Your task to perform on an android device: turn on priority inbox in the gmail app Image 0: 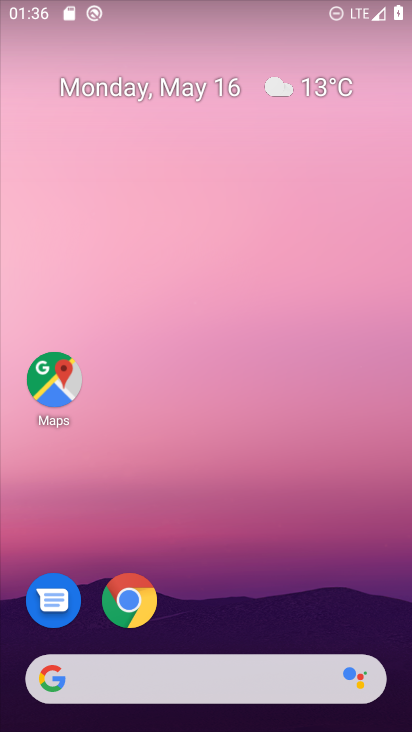
Step 0: drag from (217, 627) to (208, 40)
Your task to perform on an android device: turn on priority inbox in the gmail app Image 1: 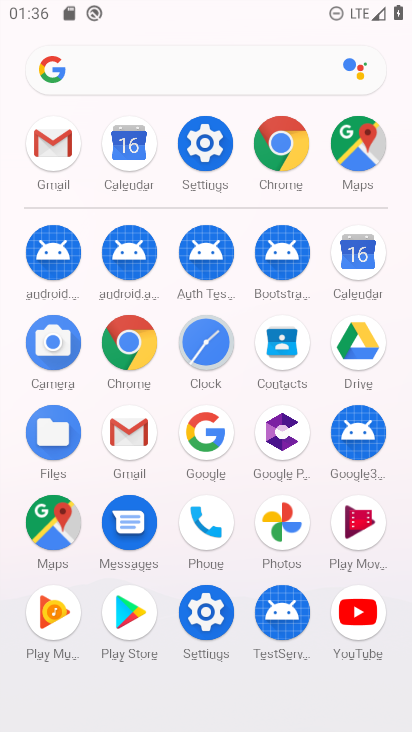
Step 1: click (123, 424)
Your task to perform on an android device: turn on priority inbox in the gmail app Image 2: 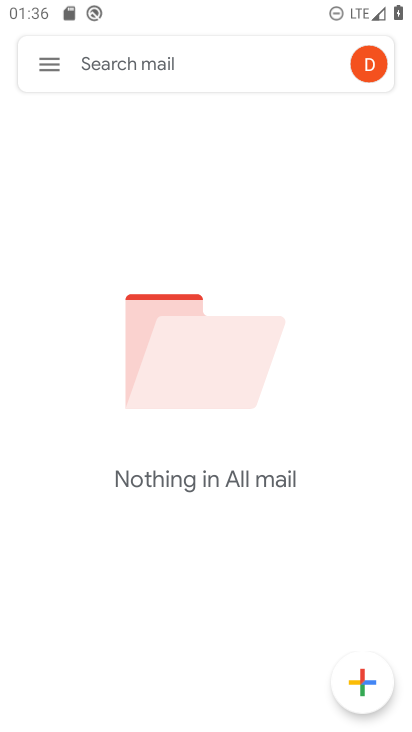
Step 2: click (37, 55)
Your task to perform on an android device: turn on priority inbox in the gmail app Image 3: 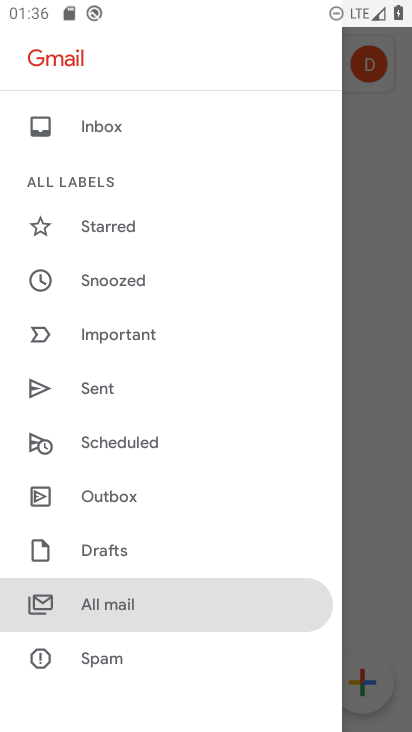
Step 3: drag from (139, 649) to (139, 23)
Your task to perform on an android device: turn on priority inbox in the gmail app Image 4: 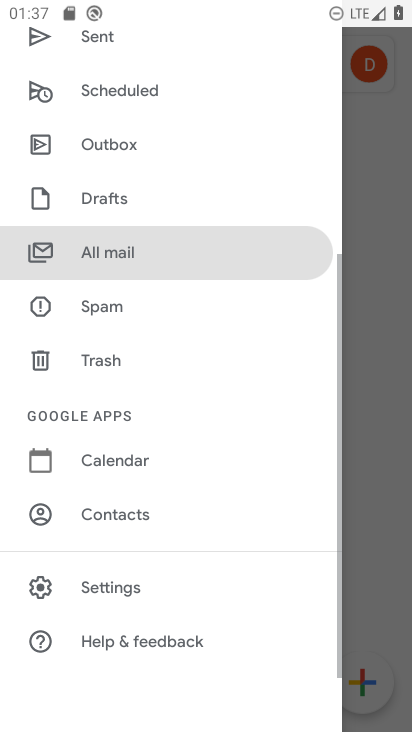
Step 4: click (132, 577)
Your task to perform on an android device: turn on priority inbox in the gmail app Image 5: 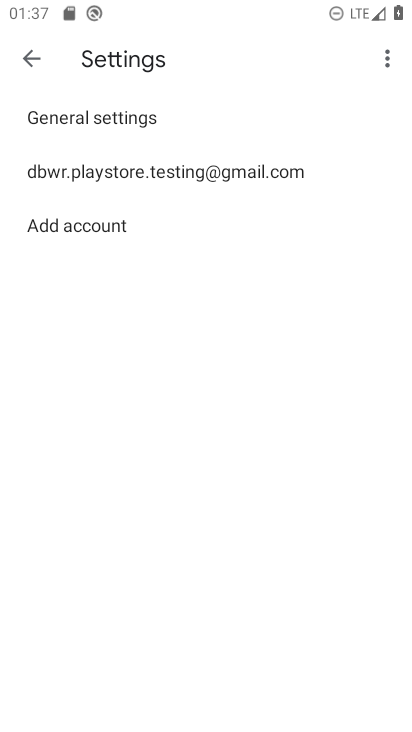
Step 5: click (202, 171)
Your task to perform on an android device: turn on priority inbox in the gmail app Image 6: 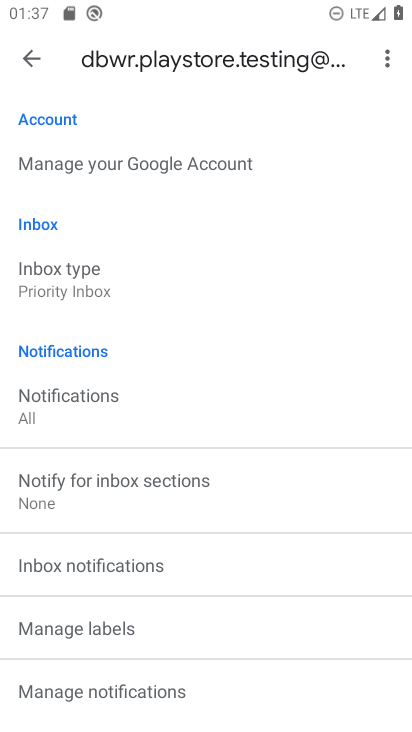
Step 6: click (114, 269)
Your task to perform on an android device: turn on priority inbox in the gmail app Image 7: 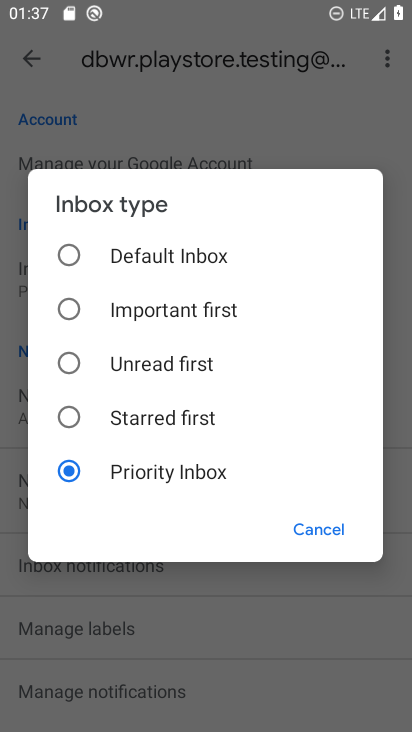
Step 7: click (81, 468)
Your task to perform on an android device: turn on priority inbox in the gmail app Image 8: 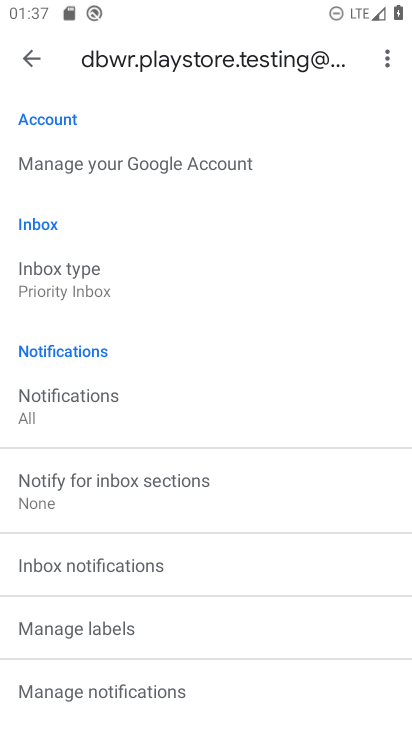
Step 8: task complete